Your task to perform on an android device: delete location history Image 0: 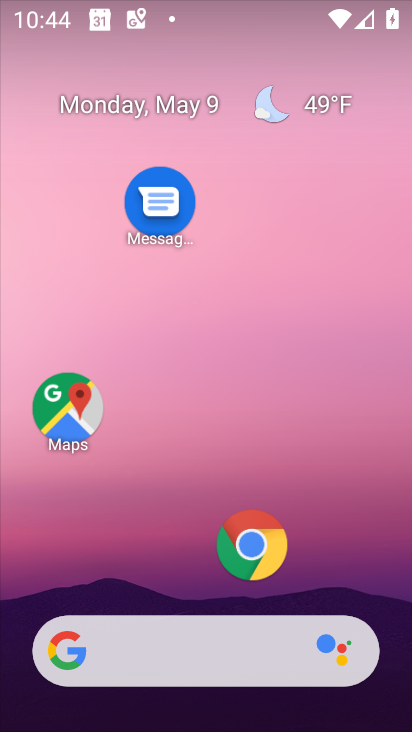
Step 0: drag from (157, 565) to (180, 58)
Your task to perform on an android device: delete location history Image 1: 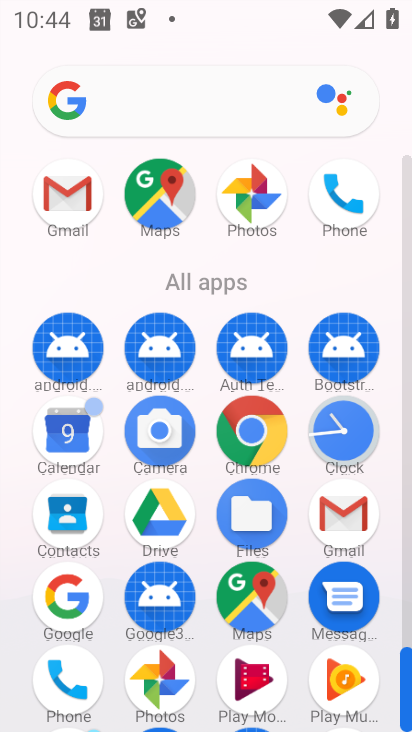
Step 1: click (167, 186)
Your task to perform on an android device: delete location history Image 2: 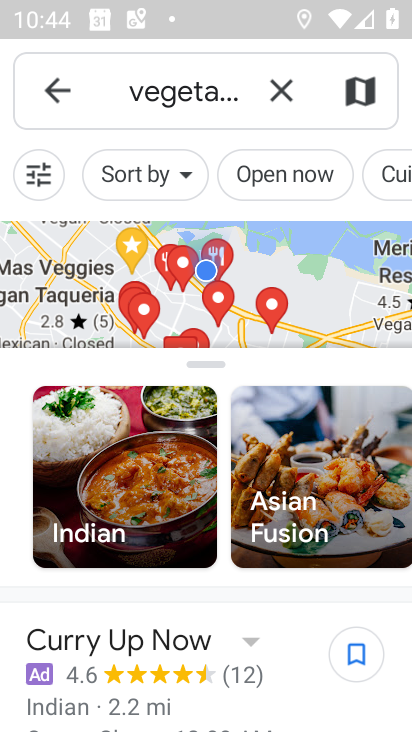
Step 2: click (57, 101)
Your task to perform on an android device: delete location history Image 3: 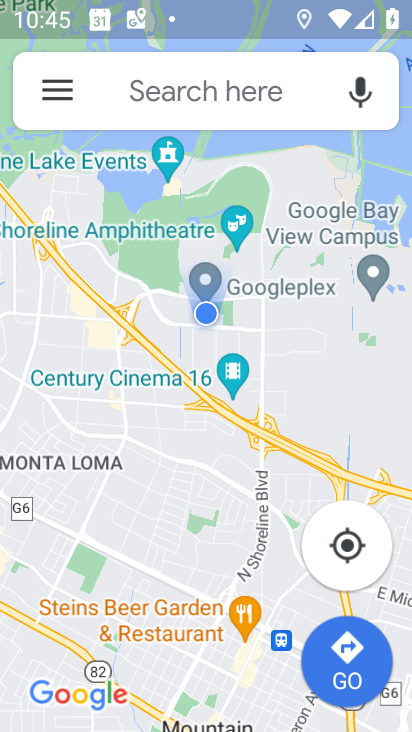
Step 3: click (41, 84)
Your task to perform on an android device: delete location history Image 4: 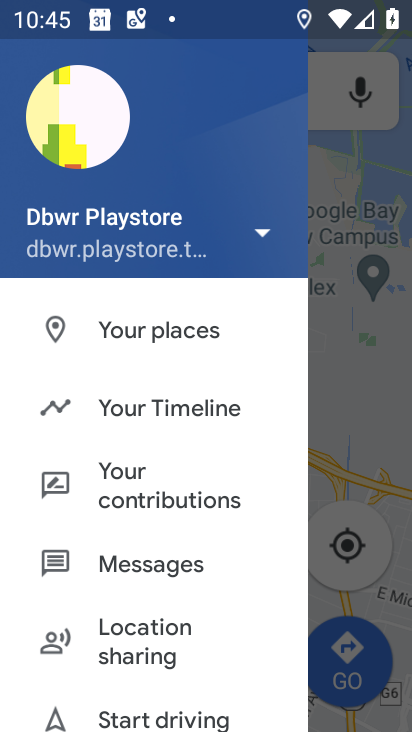
Step 4: click (151, 403)
Your task to perform on an android device: delete location history Image 5: 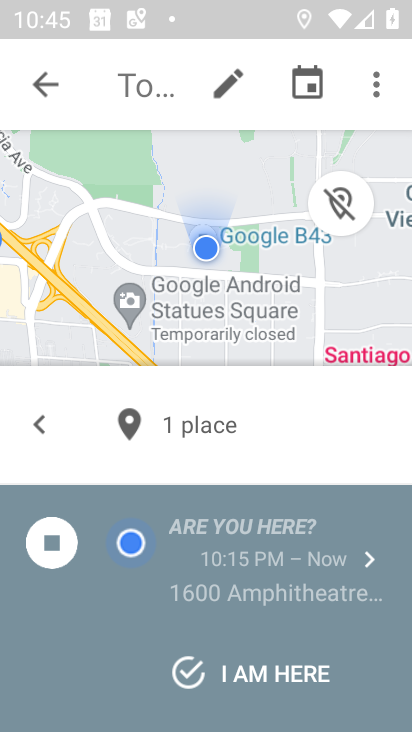
Step 5: click (382, 92)
Your task to perform on an android device: delete location history Image 6: 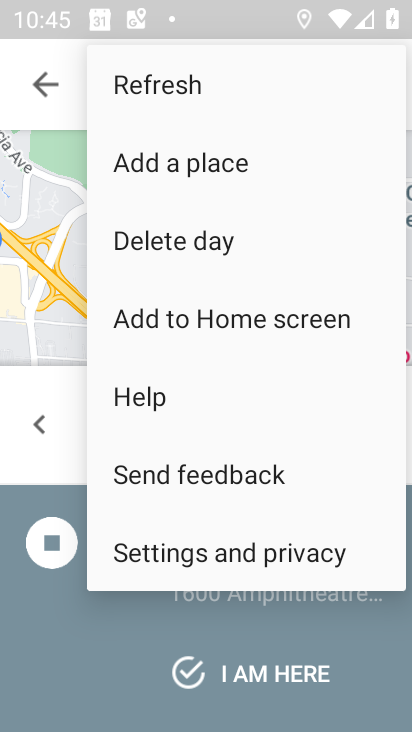
Step 6: click (191, 555)
Your task to perform on an android device: delete location history Image 7: 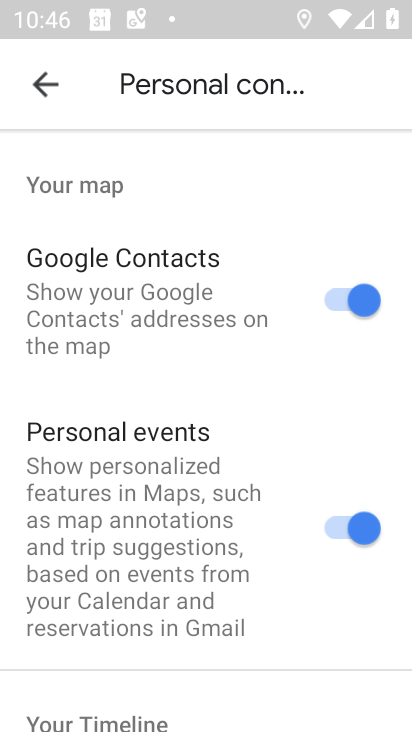
Step 7: drag from (170, 594) to (141, 258)
Your task to perform on an android device: delete location history Image 8: 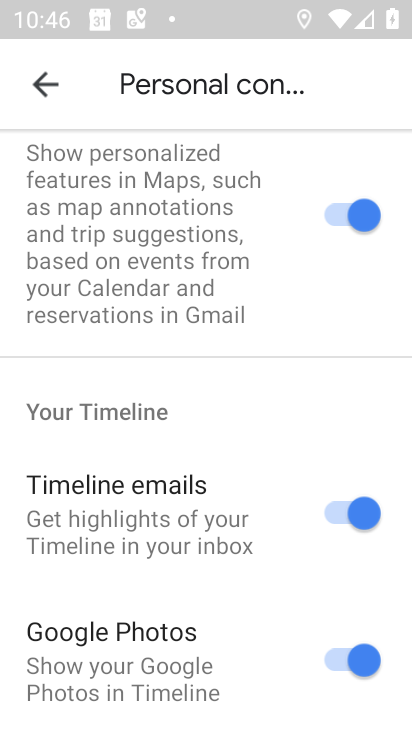
Step 8: drag from (224, 557) to (224, 221)
Your task to perform on an android device: delete location history Image 9: 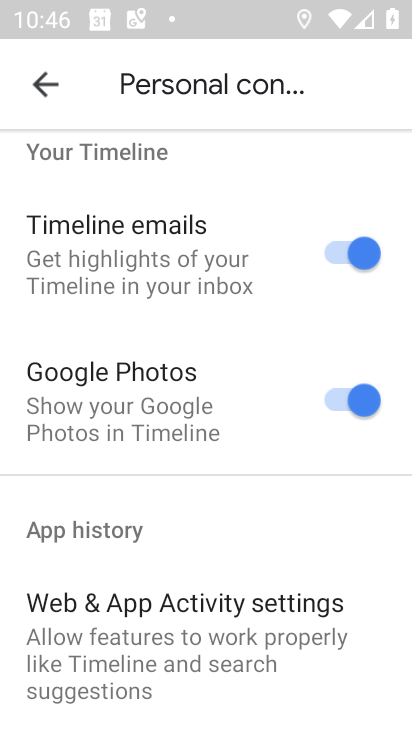
Step 9: drag from (187, 526) to (171, 182)
Your task to perform on an android device: delete location history Image 10: 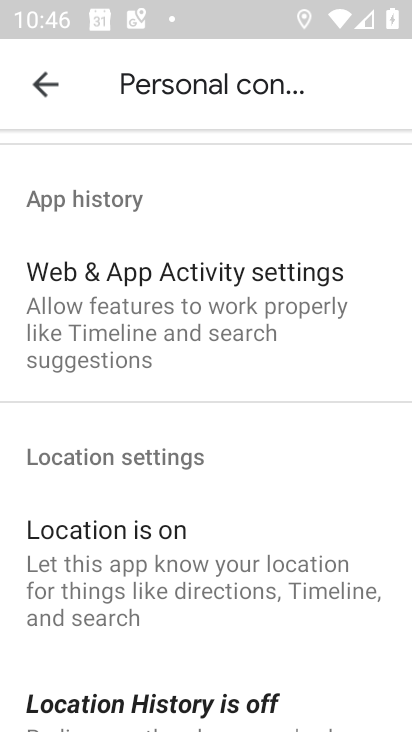
Step 10: drag from (189, 601) to (217, 174)
Your task to perform on an android device: delete location history Image 11: 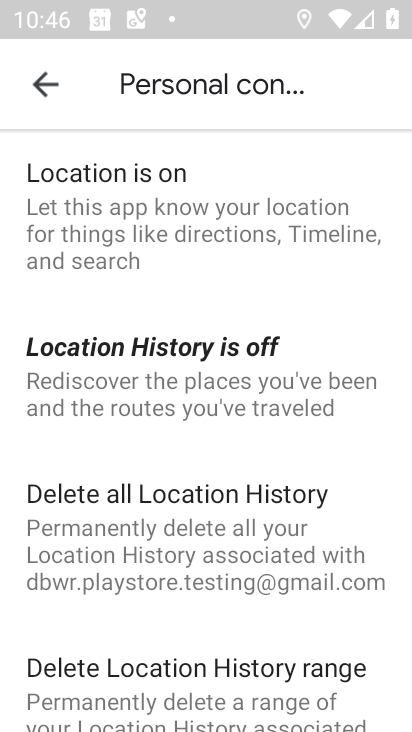
Step 11: click (208, 560)
Your task to perform on an android device: delete location history Image 12: 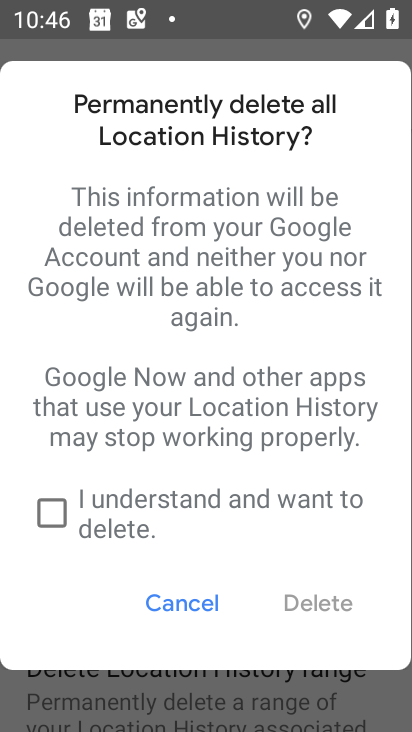
Step 12: click (71, 501)
Your task to perform on an android device: delete location history Image 13: 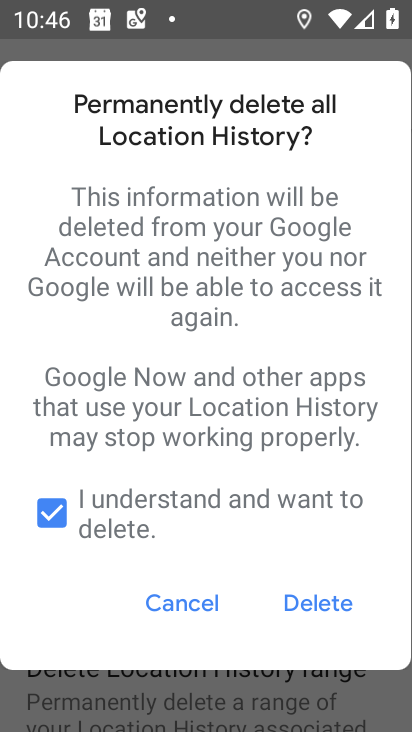
Step 13: click (338, 610)
Your task to perform on an android device: delete location history Image 14: 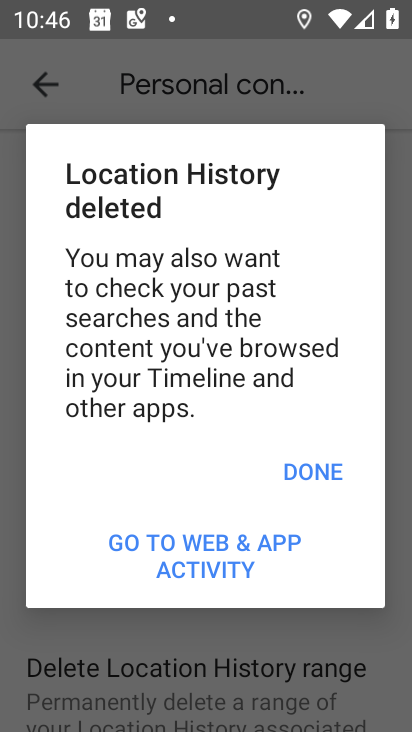
Step 14: task complete